Your task to perform on an android device: Do I have any events this weekend? Image 0: 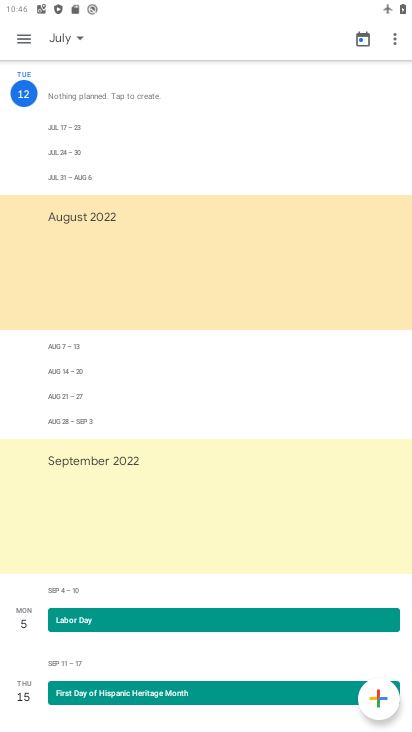
Step 0: press home button
Your task to perform on an android device: Do I have any events this weekend? Image 1: 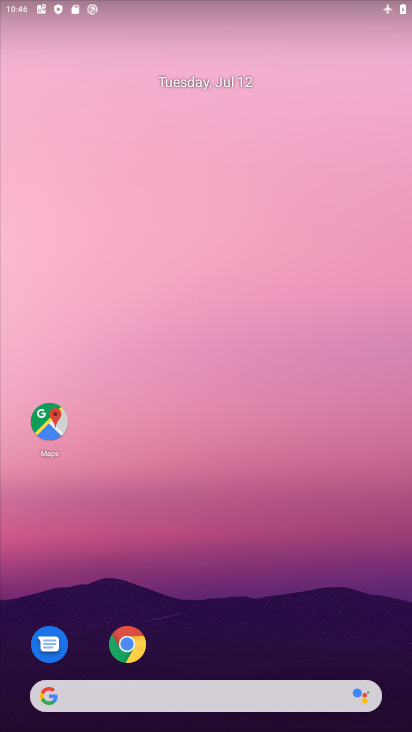
Step 1: drag from (243, 603) to (229, 36)
Your task to perform on an android device: Do I have any events this weekend? Image 2: 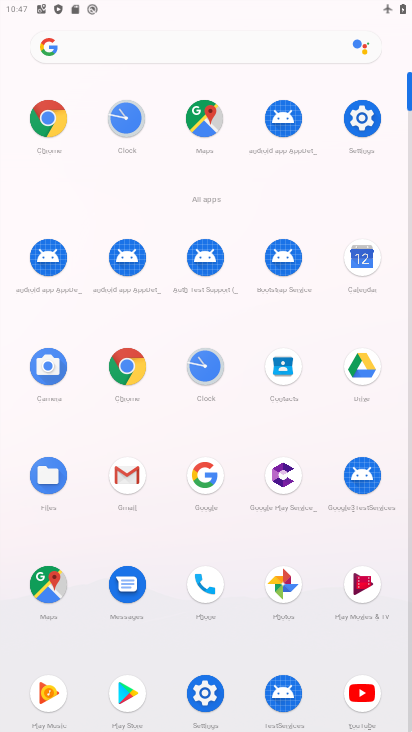
Step 2: click (361, 244)
Your task to perform on an android device: Do I have any events this weekend? Image 3: 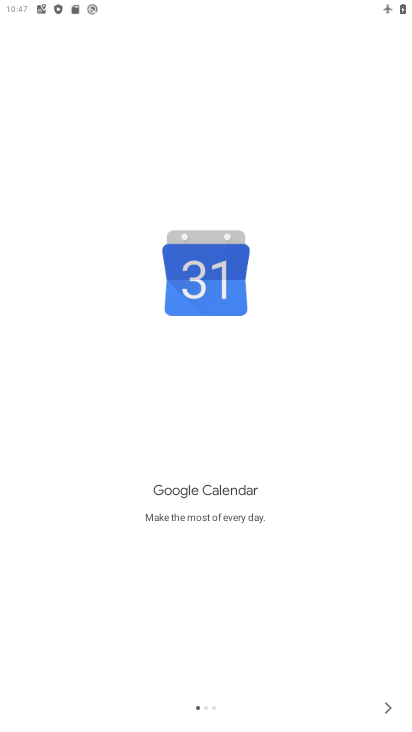
Step 3: click (387, 722)
Your task to perform on an android device: Do I have any events this weekend? Image 4: 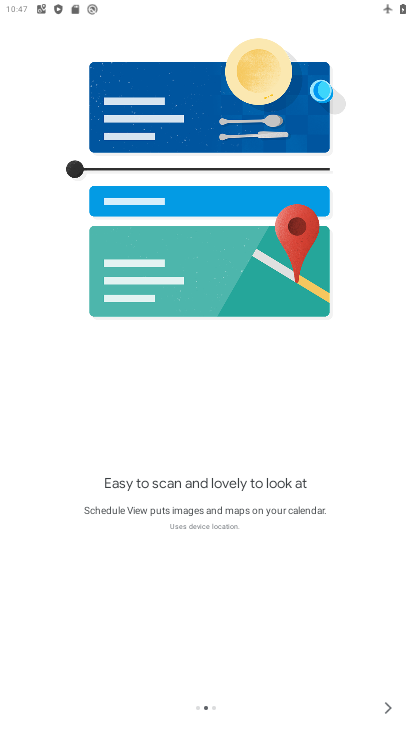
Step 4: click (390, 711)
Your task to perform on an android device: Do I have any events this weekend? Image 5: 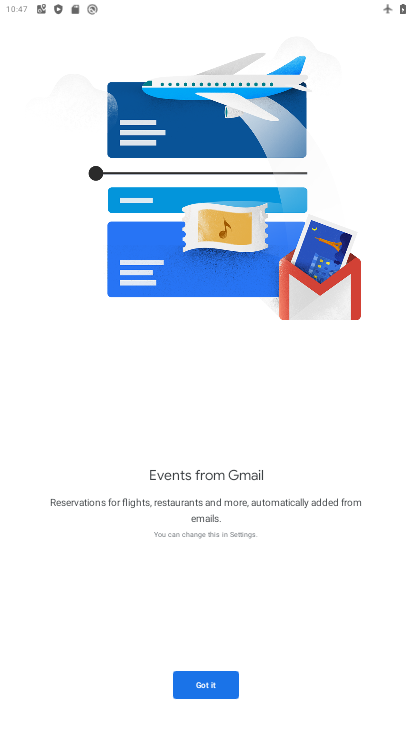
Step 5: click (198, 664)
Your task to perform on an android device: Do I have any events this weekend? Image 6: 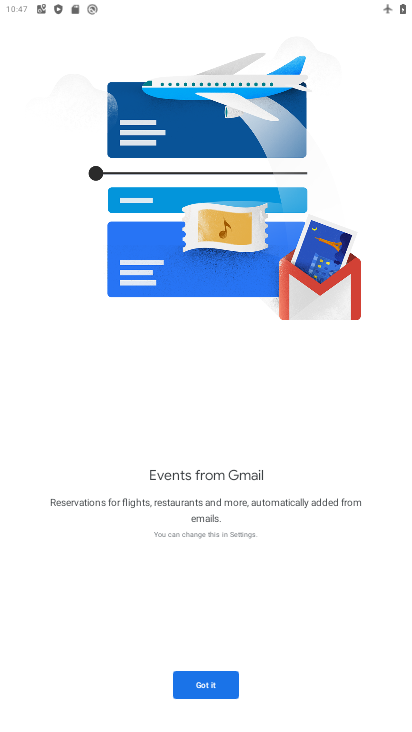
Step 6: click (203, 675)
Your task to perform on an android device: Do I have any events this weekend? Image 7: 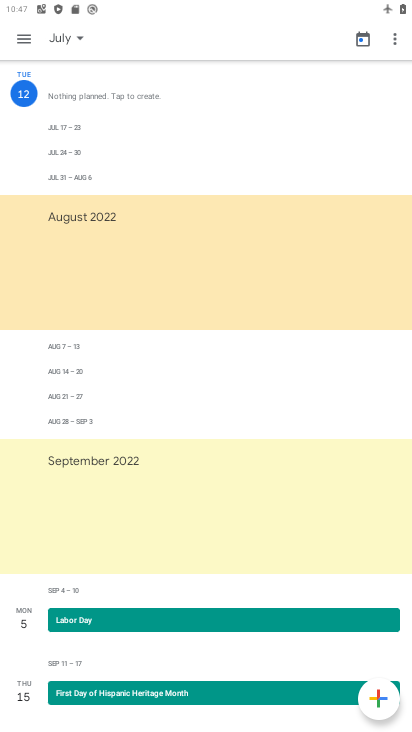
Step 7: click (70, 29)
Your task to perform on an android device: Do I have any events this weekend? Image 8: 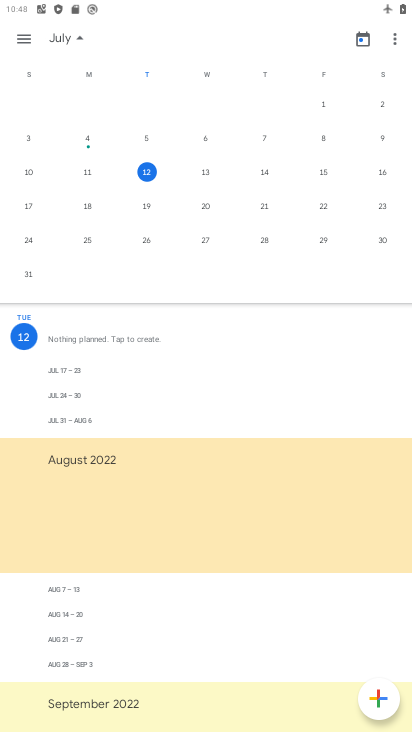
Step 8: task complete